Your task to perform on an android device: allow notifications from all sites in the chrome app Image 0: 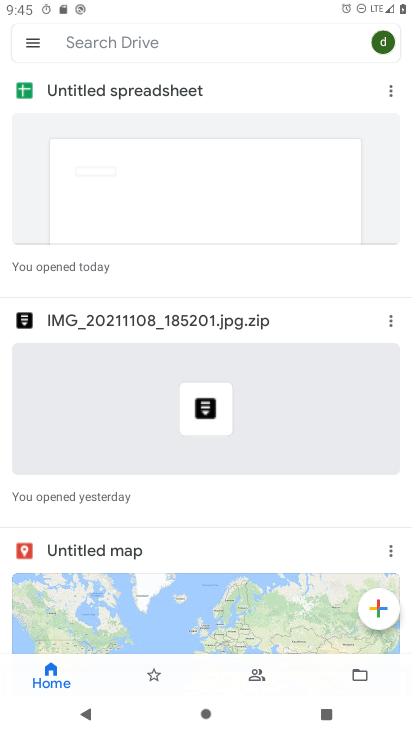
Step 0: press home button
Your task to perform on an android device: allow notifications from all sites in the chrome app Image 1: 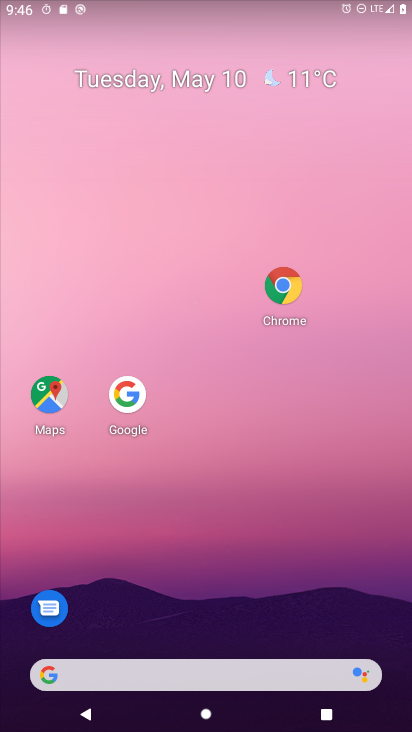
Step 1: drag from (95, 672) to (220, 139)
Your task to perform on an android device: allow notifications from all sites in the chrome app Image 2: 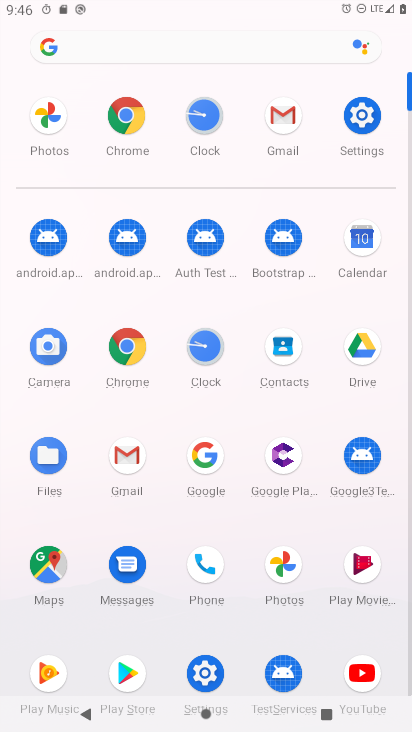
Step 2: click (130, 122)
Your task to perform on an android device: allow notifications from all sites in the chrome app Image 3: 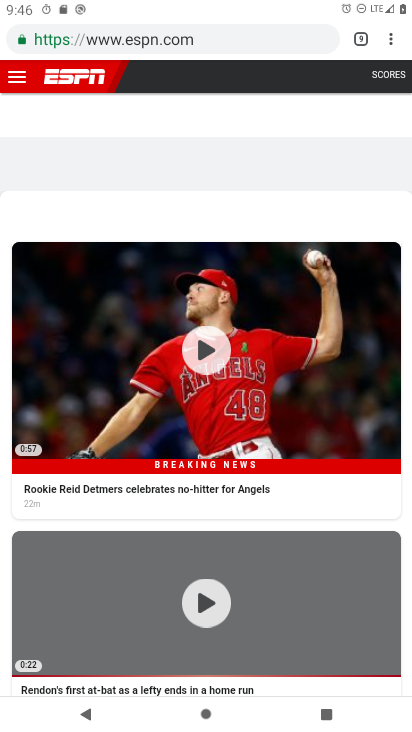
Step 3: drag from (387, 46) to (293, 474)
Your task to perform on an android device: allow notifications from all sites in the chrome app Image 4: 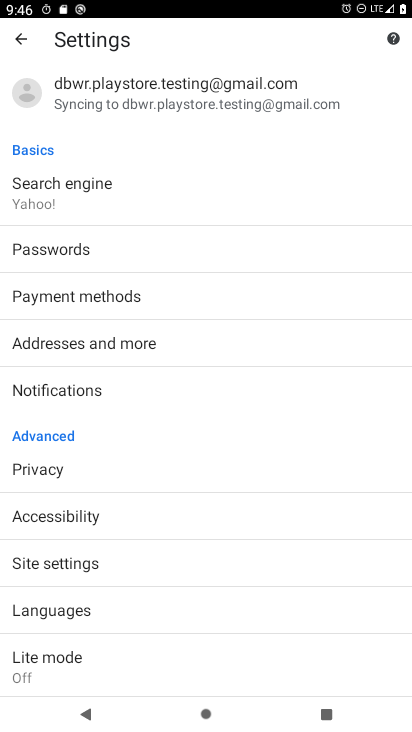
Step 4: click (53, 561)
Your task to perform on an android device: allow notifications from all sites in the chrome app Image 5: 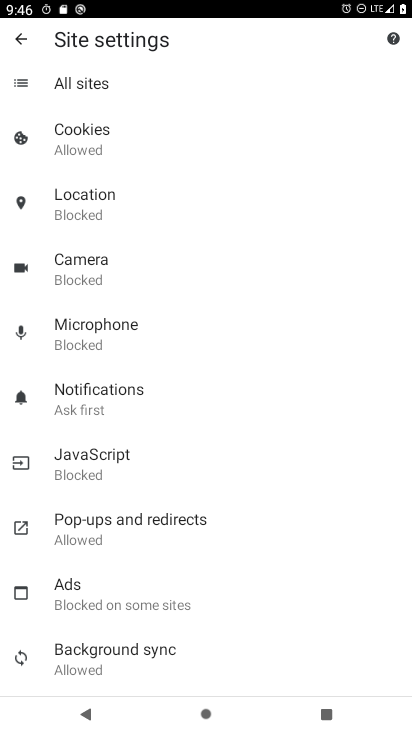
Step 5: click (104, 396)
Your task to perform on an android device: allow notifications from all sites in the chrome app Image 6: 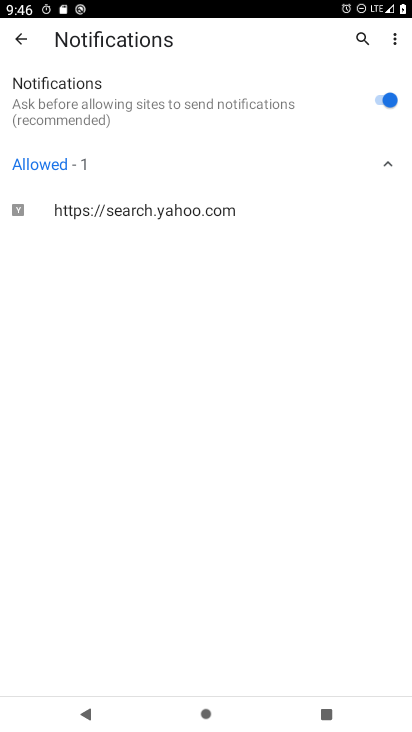
Step 6: task complete